Your task to perform on an android device: Open Google Chrome Image 0: 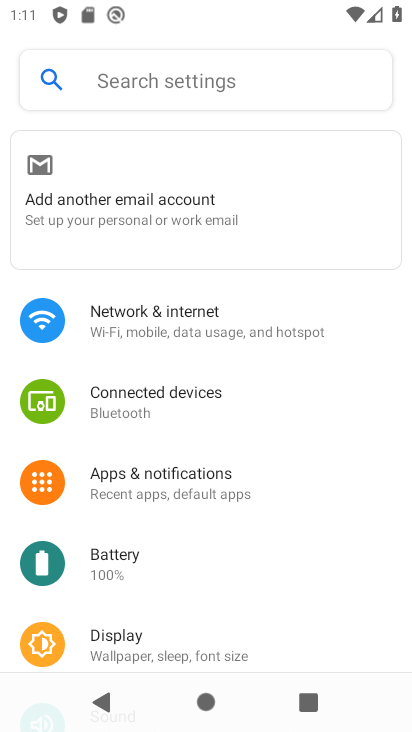
Step 0: press back button
Your task to perform on an android device: Open Google Chrome Image 1: 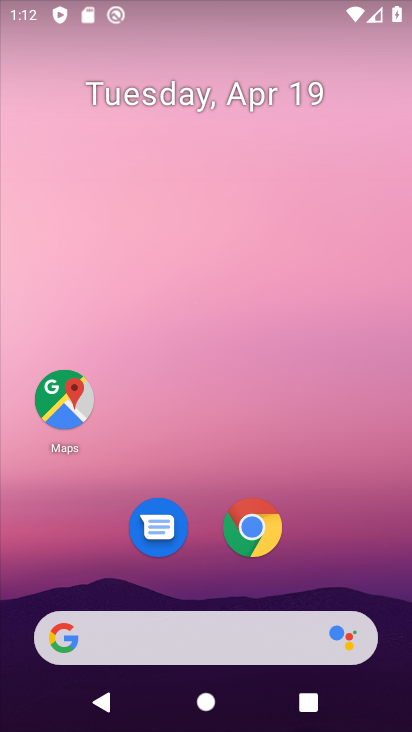
Step 1: drag from (241, 357) to (309, 9)
Your task to perform on an android device: Open Google Chrome Image 2: 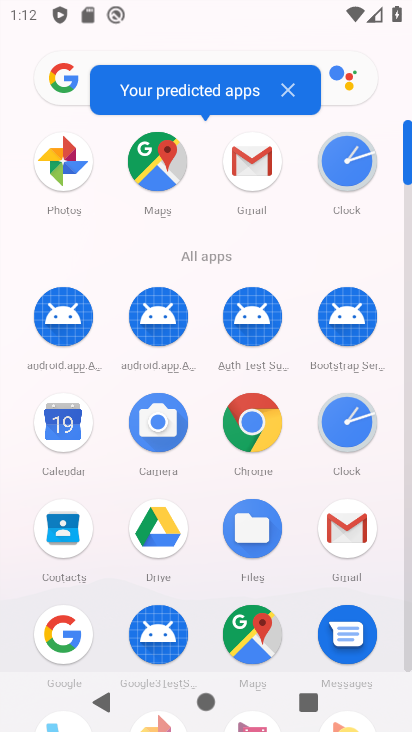
Step 2: click (256, 428)
Your task to perform on an android device: Open Google Chrome Image 3: 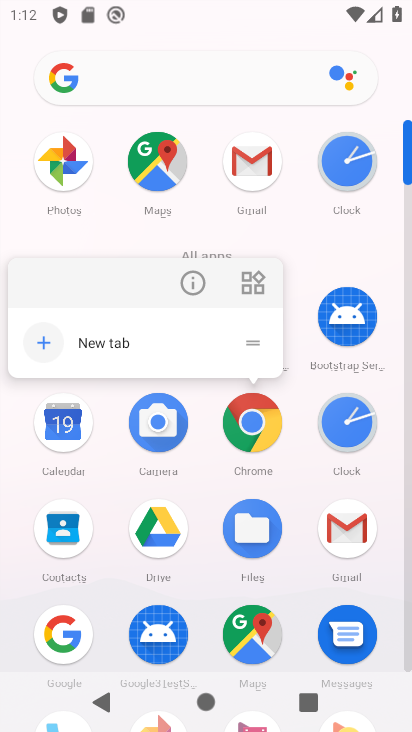
Step 3: click (256, 428)
Your task to perform on an android device: Open Google Chrome Image 4: 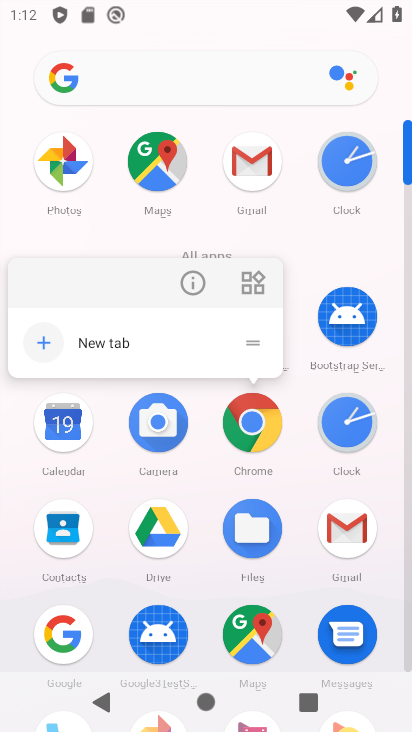
Step 4: click (260, 434)
Your task to perform on an android device: Open Google Chrome Image 5: 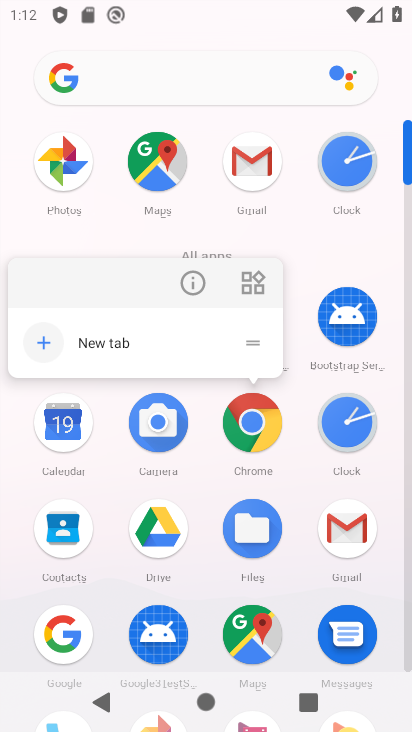
Step 5: click (242, 412)
Your task to perform on an android device: Open Google Chrome Image 6: 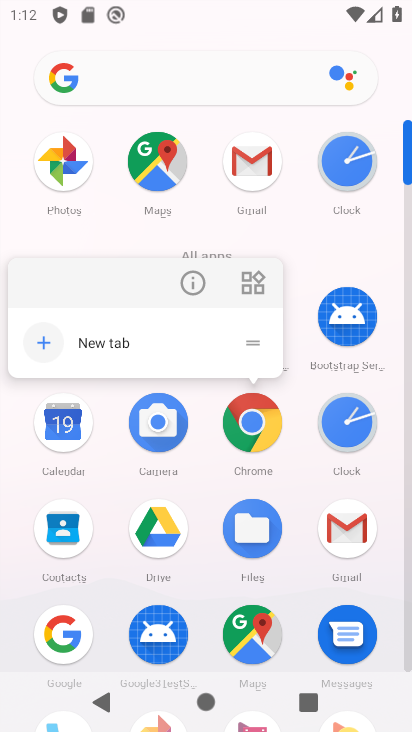
Step 6: click (262, 426)
Your task to perform on an android device: Open Google Chrome Image 7: 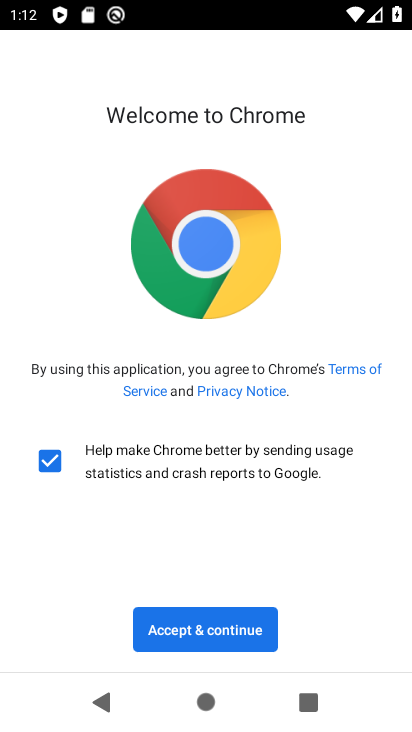
Step 7: click (210, 628)
Your task to perform on an android device: Open Google Chrome Image 8: 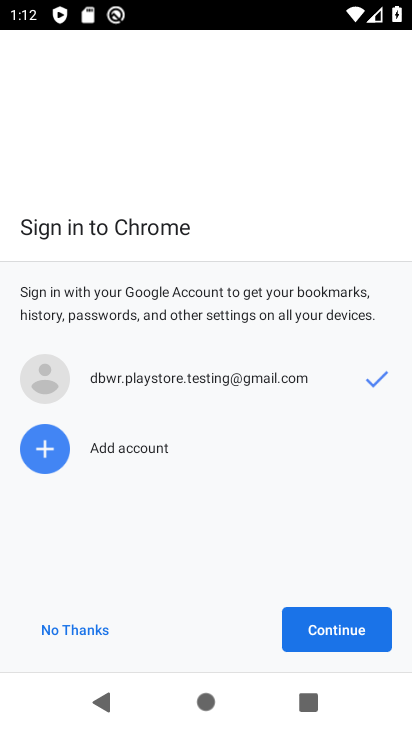
Step 8: click (333, 643)
Your task to perform on an android device: Open Google Chrome Image 9: 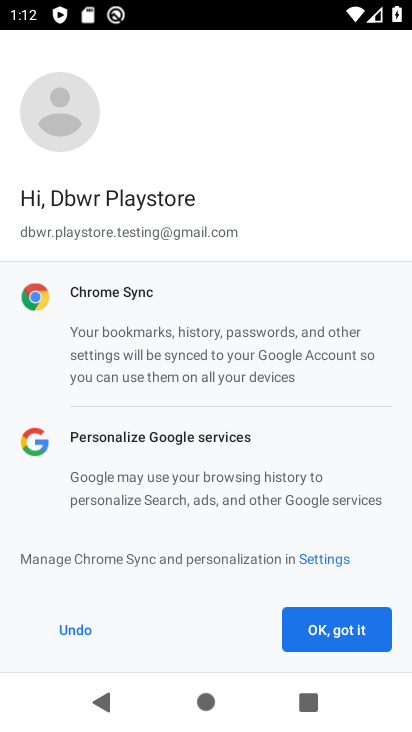
Step 9: click (332, 644)
Your task to perform on an android device: Open Google Chrome Image 10: 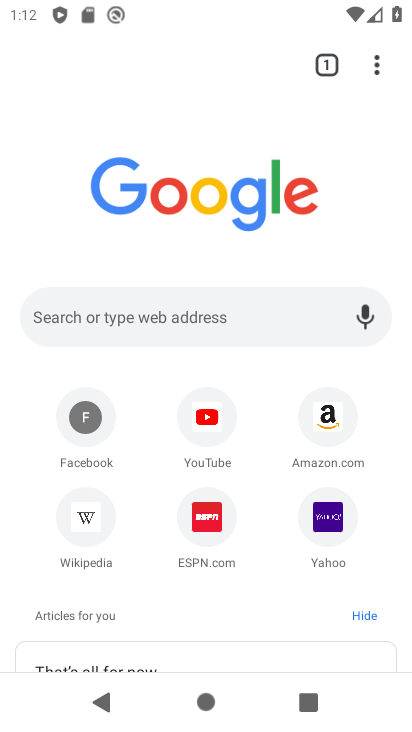
Step 10: task complete